Your task to perform on an android device: choose inbox layout in the gmail app Image 0: 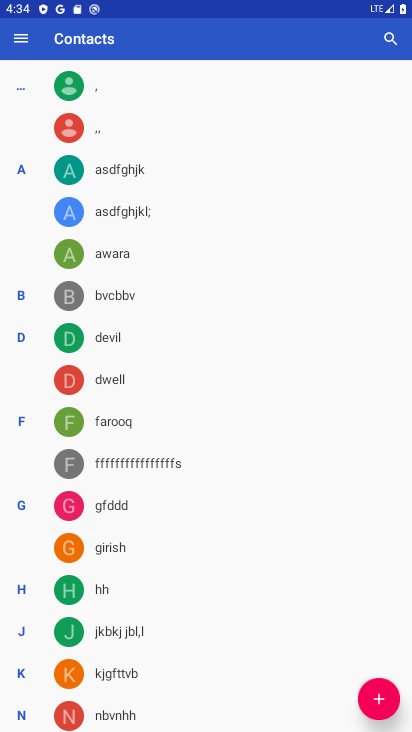
Step 0: press back button
Your task to perform on an android device: choose inbox layout in the gmail app Image 1: 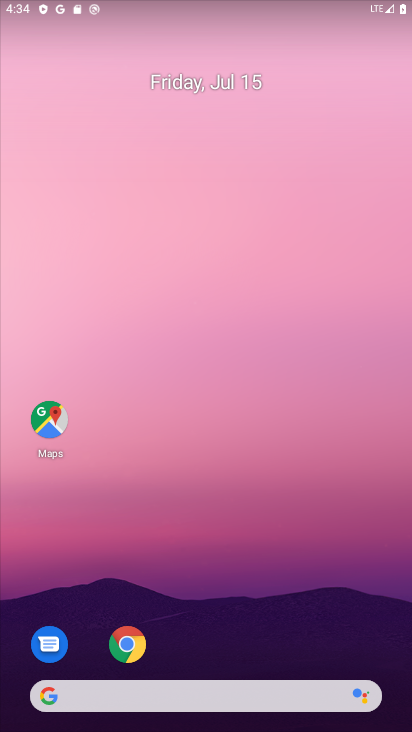
Step 1: drag from (221, 647) to (167, 305)
Your task to perform on an android device: choose inbox layout in the gmail app Image 2: 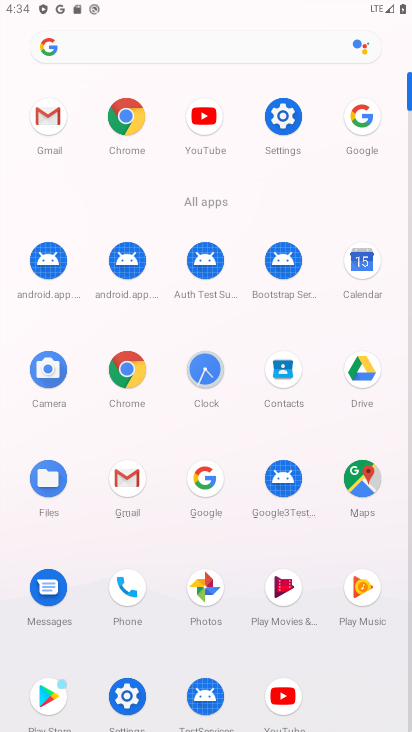
Step 2: click (130, 492)
Your task to perform on an android device: choose inbox layout in the gmail app Image 3: 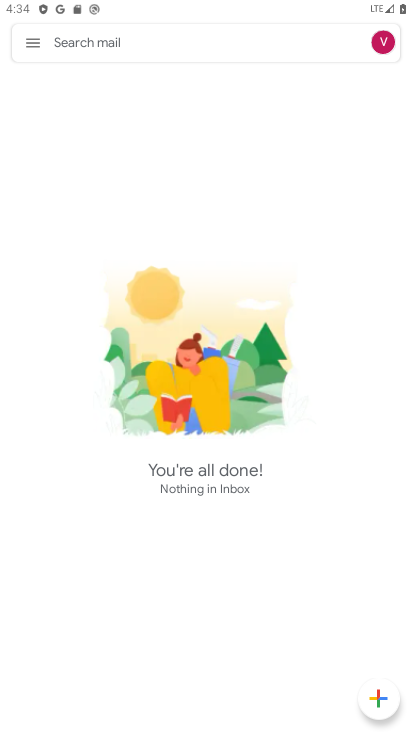
Step 3: click (32, 48)
Your task to perform on an android device: choose inbox layout in the gmail app Image 4: 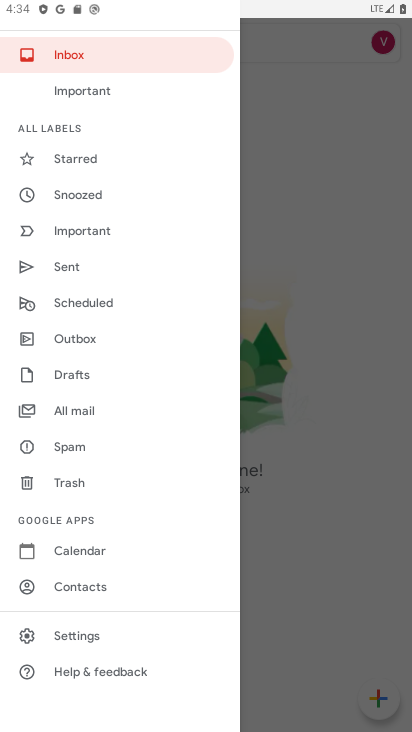
Step 4: click (78, 639)
Your task to perform on an android device: choose inbox layout in the gmail app Image 5: 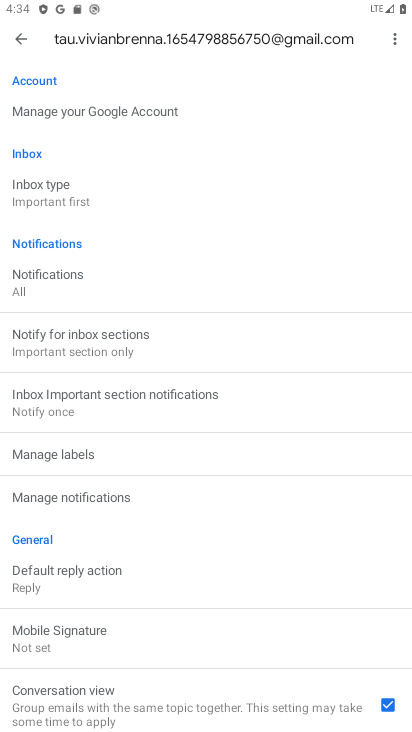
Step 5: click (55, 183)
Your task to perform on an android device: choose inbox layout in the gmail app Image 6: 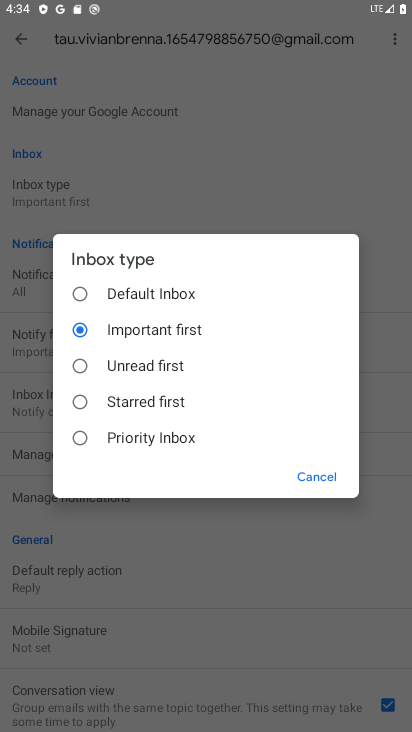
Step 6: click (73, 439)
Your task to perform on an android device: choose inbox layout in the gmail app Image 7: 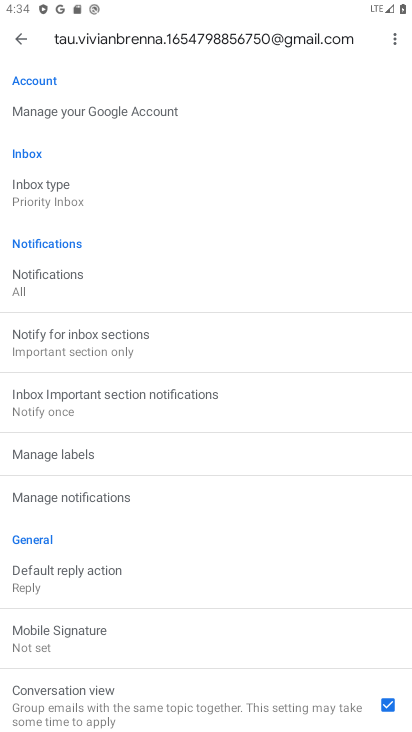
Step 7: task complete